Your task to perform on an android device: change the clock display to digital Image 0: 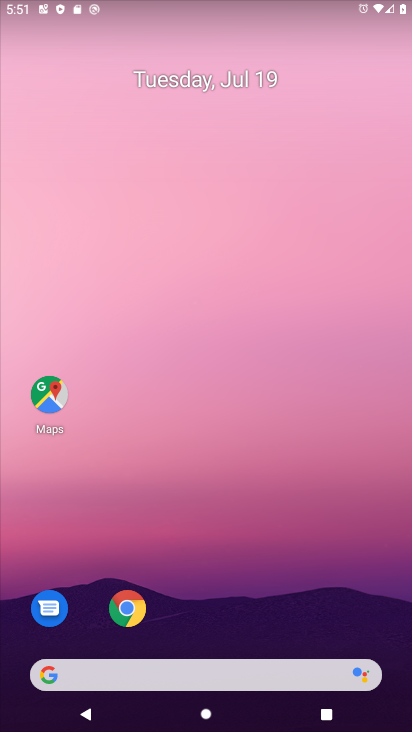
Step 0: drag from (279, 605) to (296, 44)
Your task to perform on an android device: change the clock display to digital Image 1: 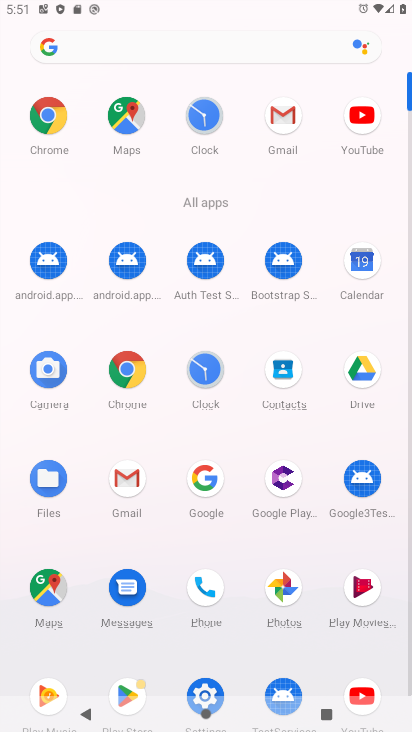
Step 1: click (204, 380)
Your task to perform on an android device: change the clock display to digital Image 2: 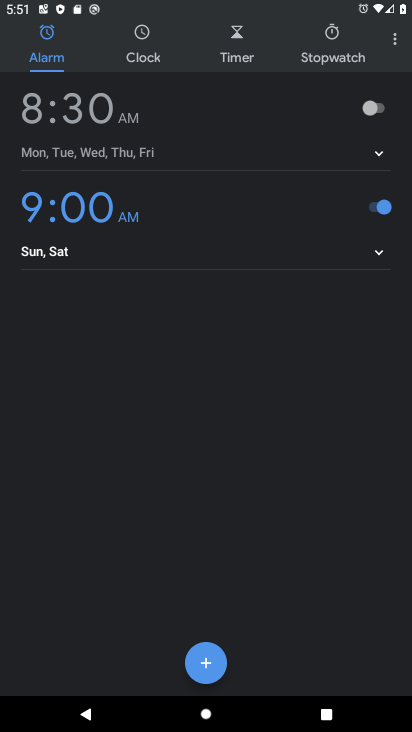
Step 2: click (399, 44)
Your task to perform on an android device: change the clock display to digital Image 3: 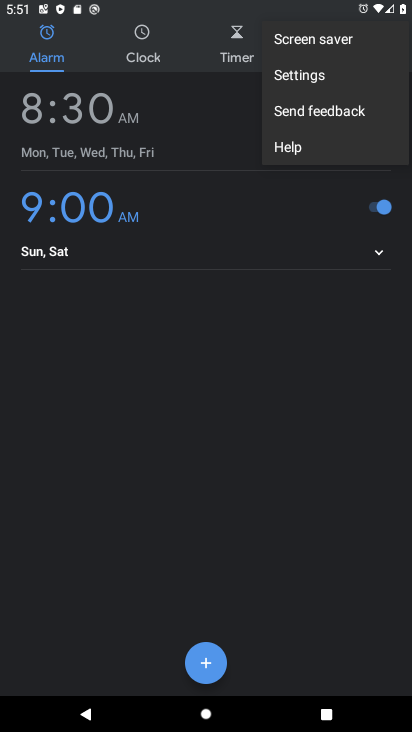
Step 3: click (337, 72)
Your task to perform on an android device: change the clock display to digital Image 4: 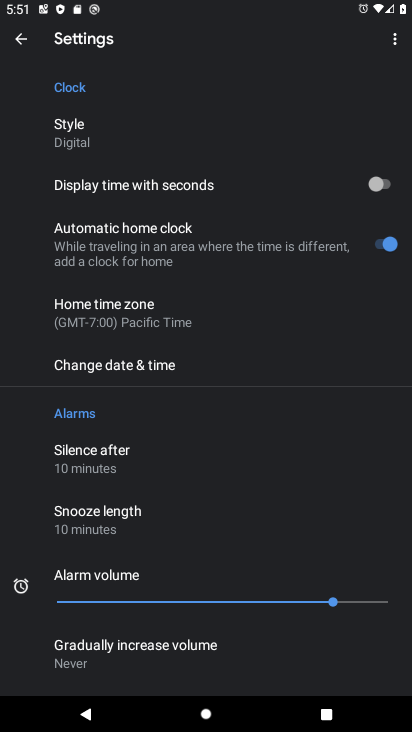
Step 4: task complete